Your task to perform on an android device: toggle show notifications on the lock screen Image 0: 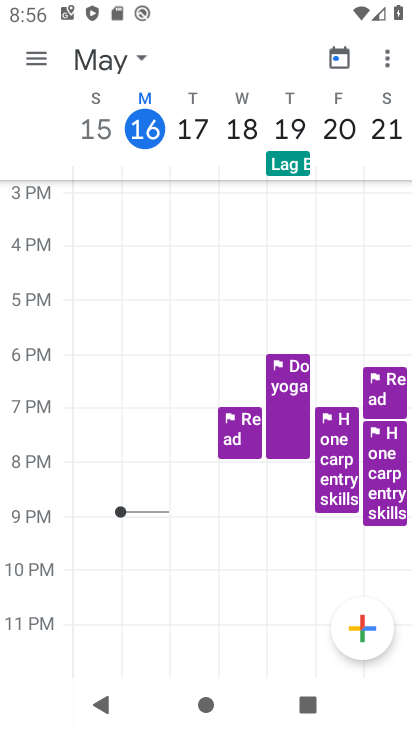
Step 0: press home button
Your task to perform on an android device: toggle show notifications on the lock screen Image 1: 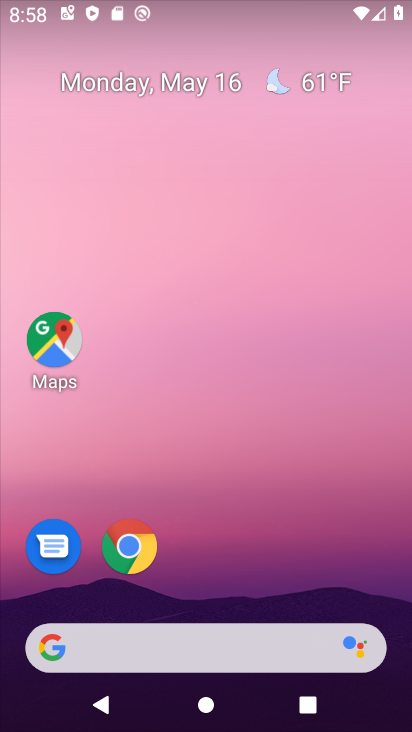
Step 1: drag from (294, 565) to (205, 192)
Your task to perform on an android device: toggle show notifications on the lock screen Image 2: 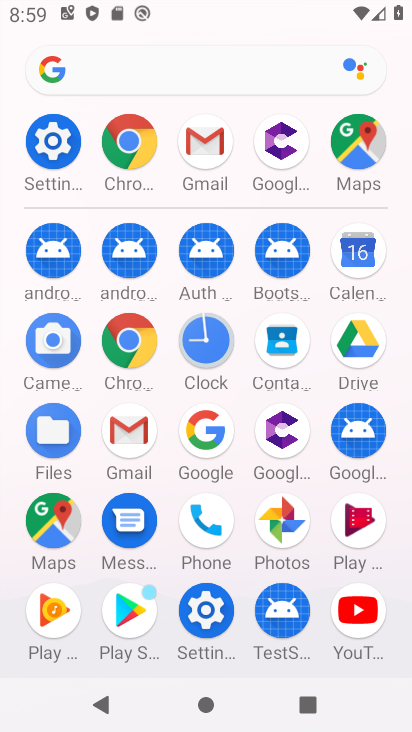
Step 2: click (59, 156)
Your task to perform on an android device: toggle show notifications on the lock screen Image 3: 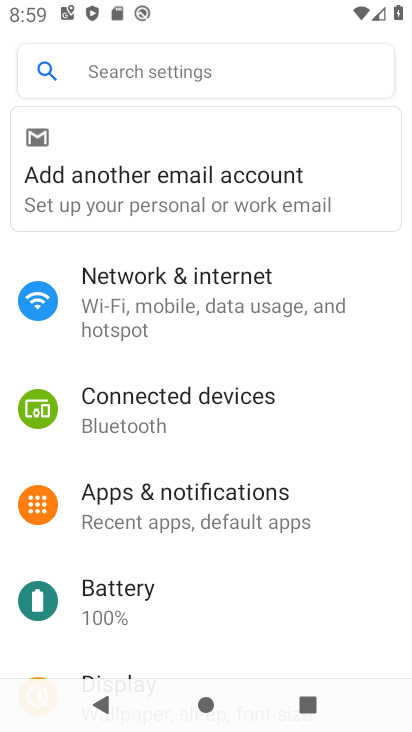
Step 3: click (206, 515)
Your task to perform on an android device: toggle show notifications on the lock screen Image 4: 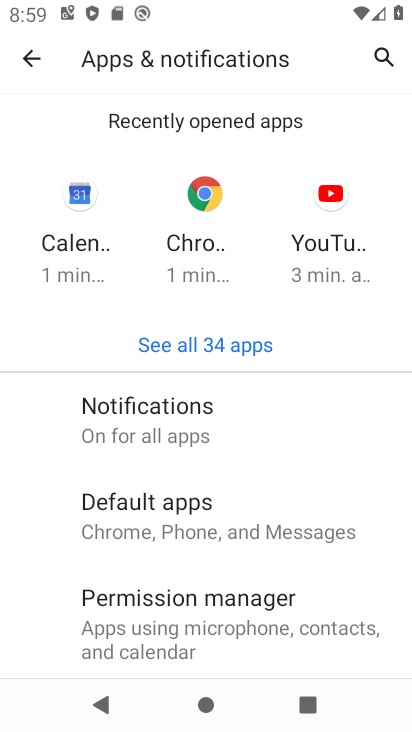
Step 4: drag from (222, 563) to (180, 366)
Your task to perform on an android device: toggle show notifications on the lock screen Image 5: 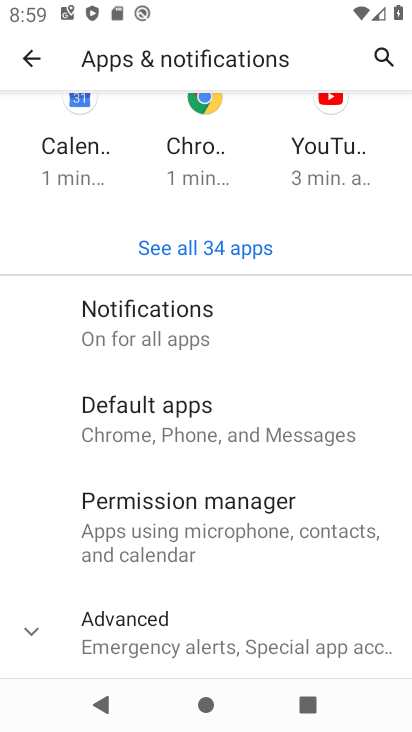
Step 5: click (164, 334)
Your task to perform on an android device: toggle show notifications on the lock screen Image 6: 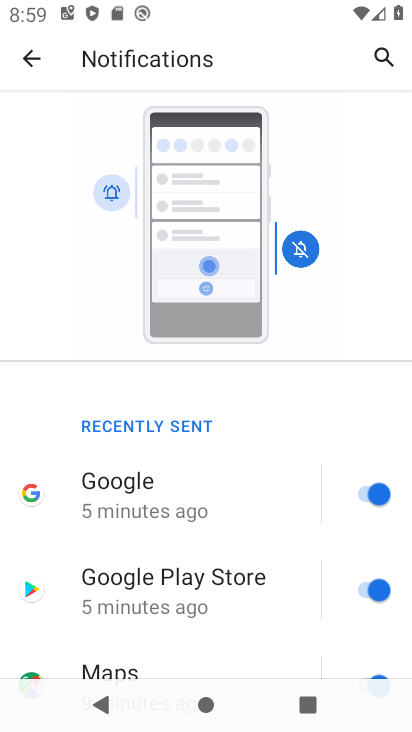
Step 6: drag from (304, 567) to (204, 158)
Your task to perform on an android device: toggle show notifications on the lock screen Image 7: 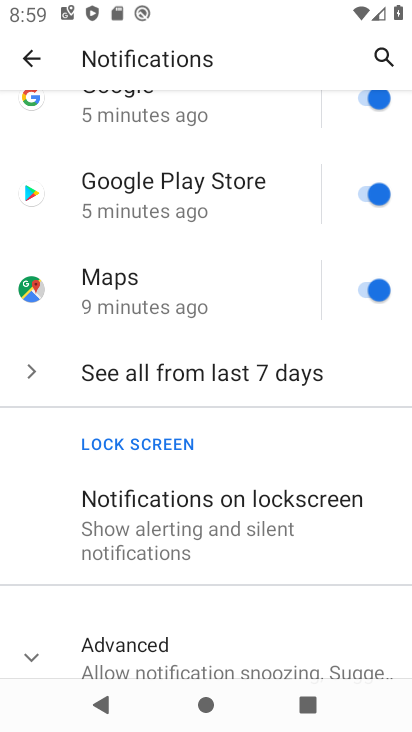
Step 7: click (303, 503)
Your task to perform on an android device: toggle show notifications on the lock screen Image 8: 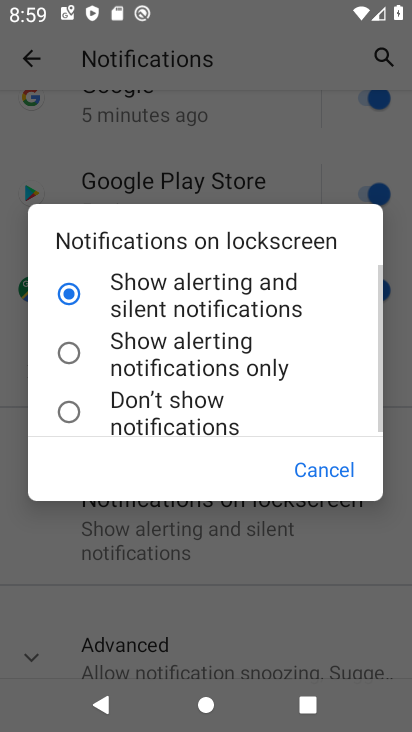
Step 8: click (153, 427)
Your task to perform on an android device: toggle show notifications on the lock screen Image 9: 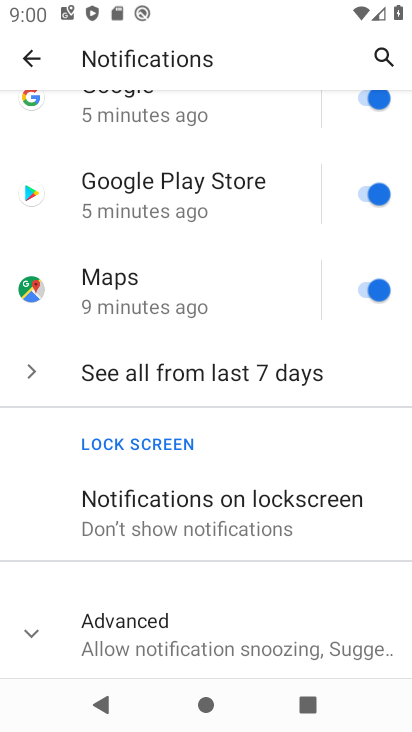
Step 9: task complete